Your task to perform on an android device: Go to calendar. Show me events next week Image 0: 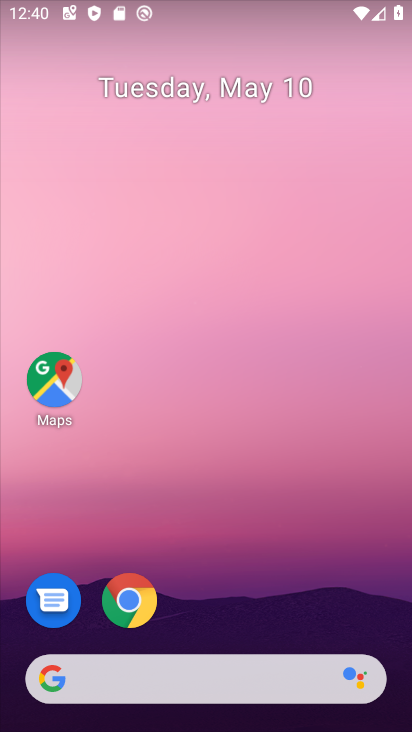
Step 0: drag from (250, 663) to (262, 207)
Your task to perform on an android device: Go to calendar. Show me events next week Image 1: 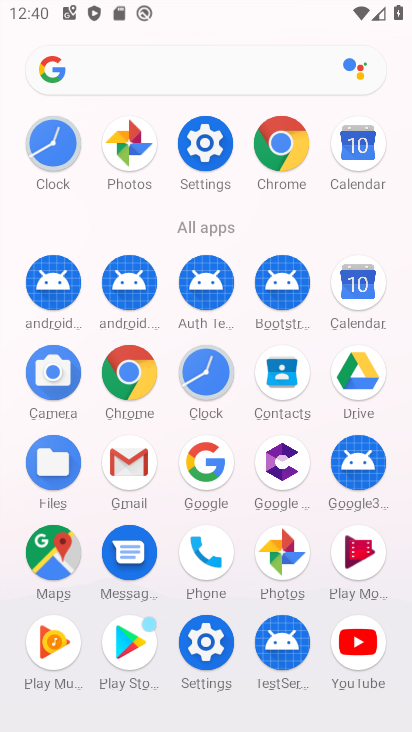
Step 1: click (353, 288)
Your task to perform on an android device: Go to calendar. Show me events next week Image 2: 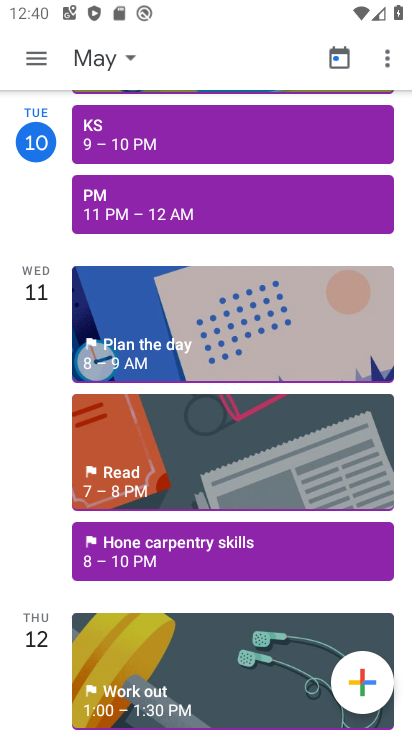
Step 2: click (31, 60)
Your task to perform on an android device: Go to calendar. Show me events next week Image 3: 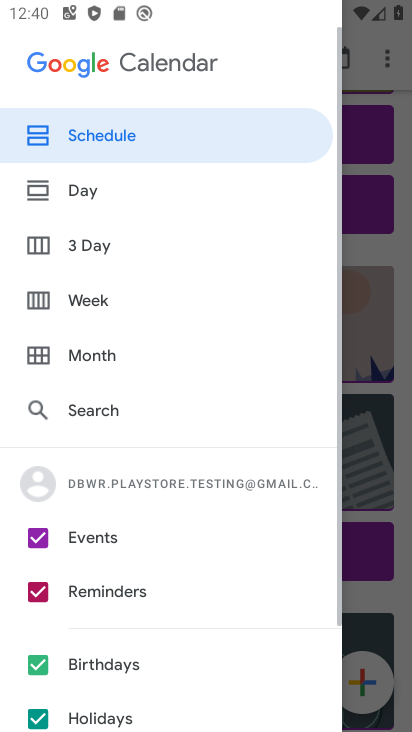
Step 3: click (124, 296)
Your task to perform on an android device: Go to calendar. Show me events next week Image 4: 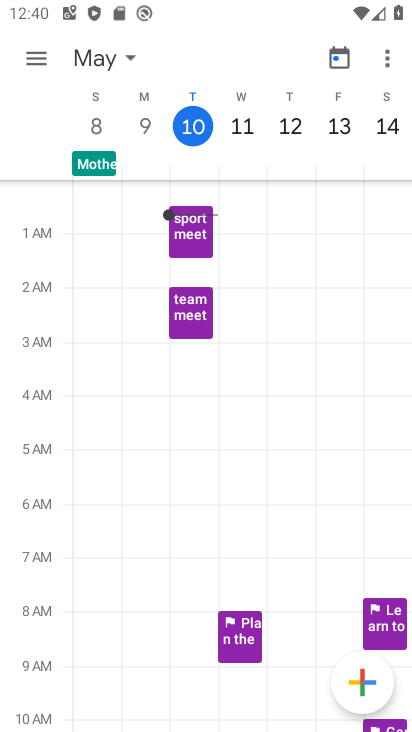
Step 4: task complete